Your task to perform on an android device: Open location settings Image 0: 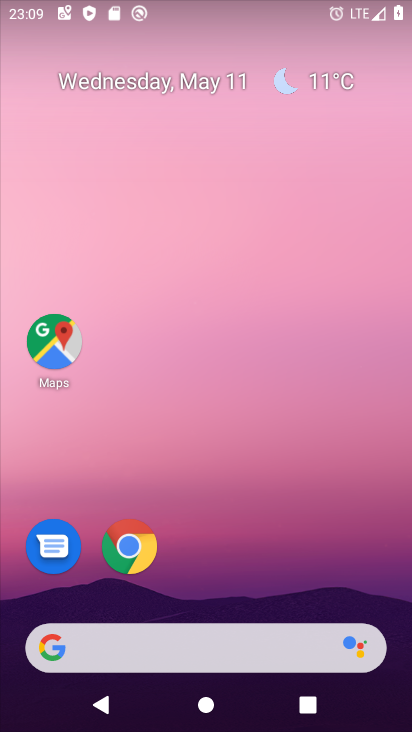
Step 0: drag from (392, 615) to (320, 204)
Your task to perform on an android device: Open location settings Image 1: 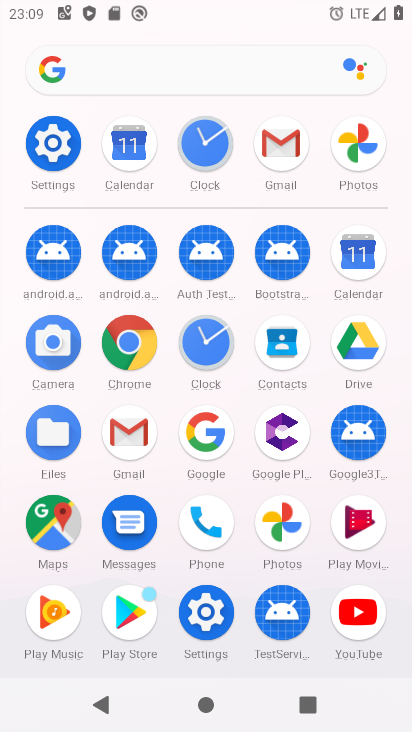
Step 1: click (206, 609)
Your task to perform on an android device: Open location settings Image 2: 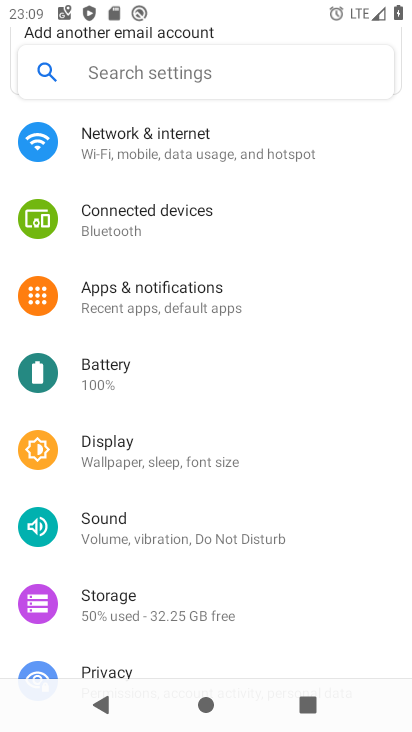
Step 2: drag from (344, 625) to (331, 225)
Your task to perform on an android device: Open location settings Image 3: 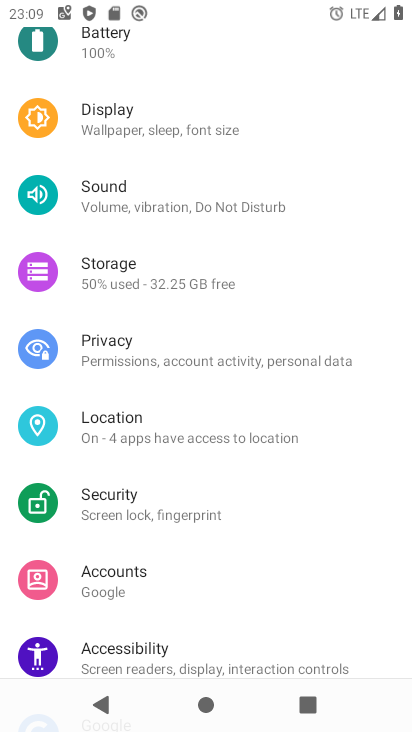
Step 3: click (131, 433)
Your task to perform on an android device: Open location settings Image 4: 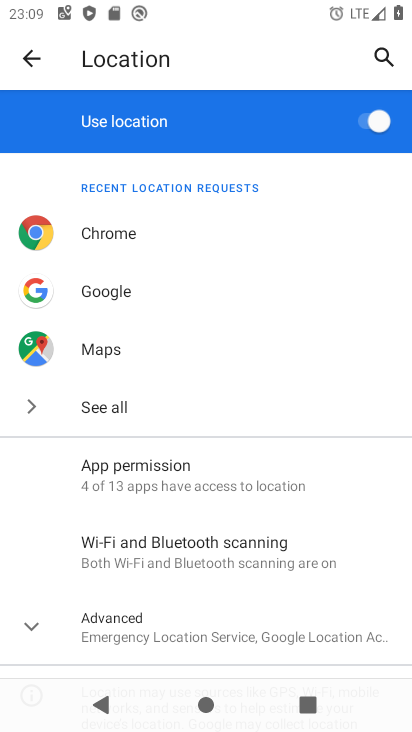
Step 4: click (40, 627)
Your task to perform on an android device: Open location settings Image 5: 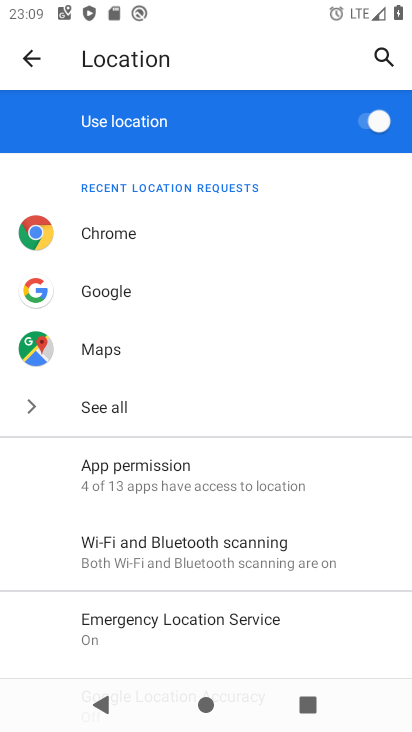
Step 5: task complete